Your task to perform on an android device: turn off smart reply in the gmail app Image 0: 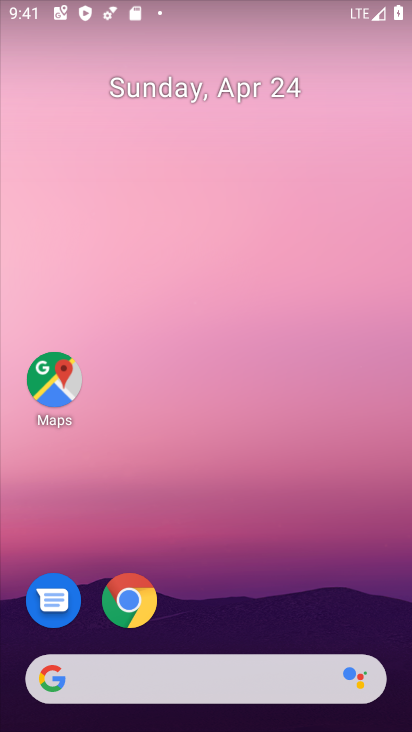
Step 0: drag from (220, 596) to (404, 39)
Your task to perform on an android device: turn off smart reply in the gmail app Image 1: 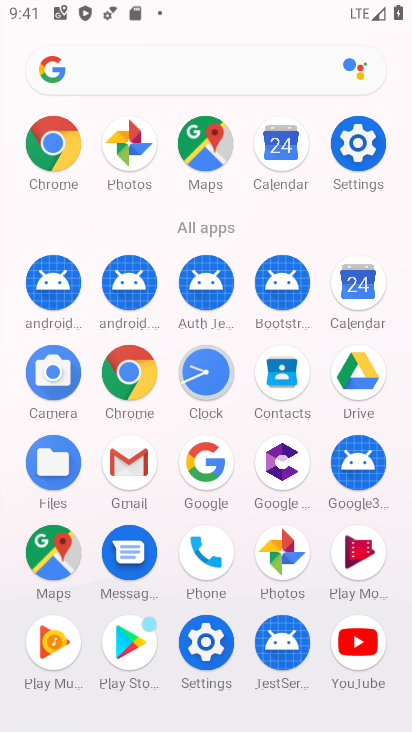
Step 1: click (135, 470)
Your task to perform on an android device: turn off smart reply in the gmail app Image 2: 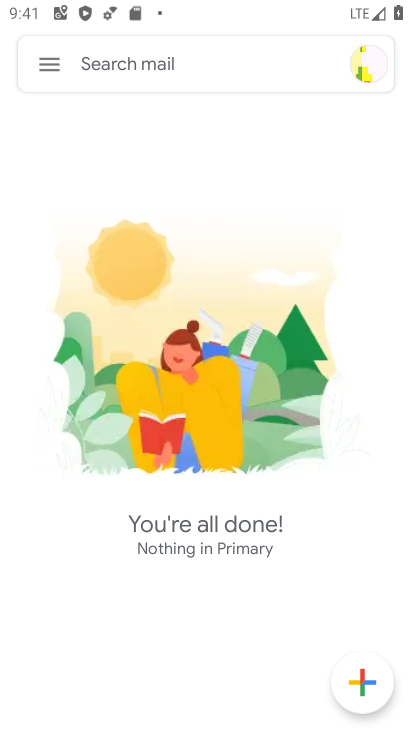
Step 2: click (46, 66)
Your task to perform on an android device: turn off smart reply in the gmail app Image 3: 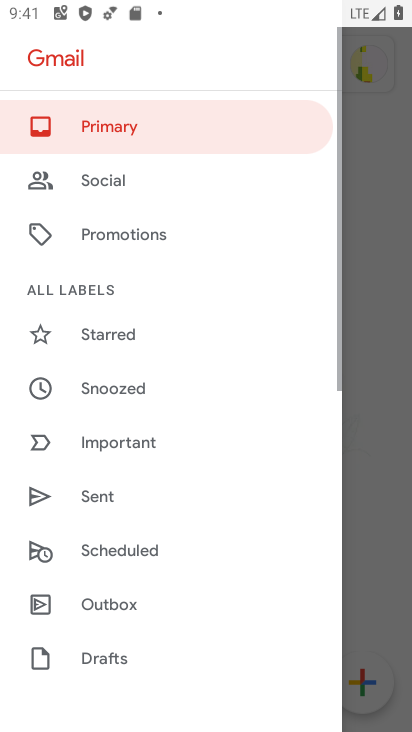
Step 3: drag from (133, 605) to (206, 94)
Your task to perform on an android device: turn off smart reply in the gmail app Image 4: 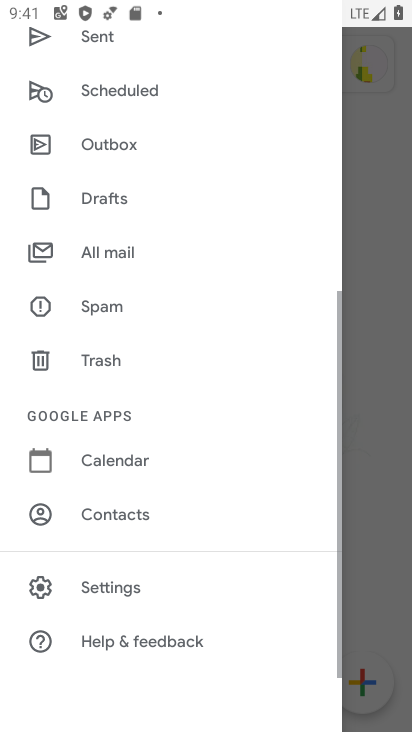
Step 4: click (99, 586)
Your task to perform on an android device: turn off smart reply in the gmail app Image 5: 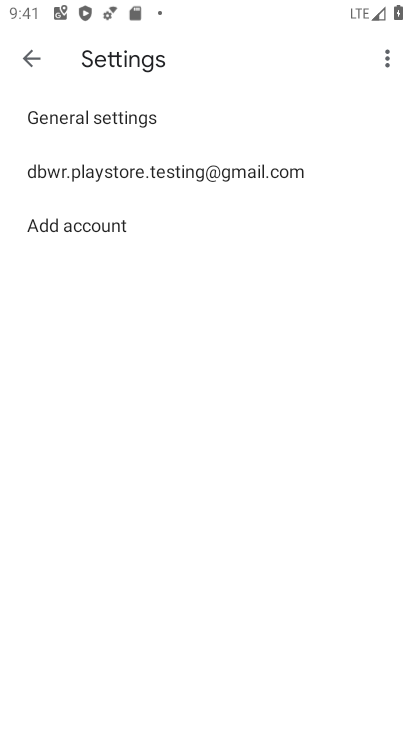
Step 5: click (108, 170)
Your task to perform on an android device: turn off smart reply in the gmail app Image 6: 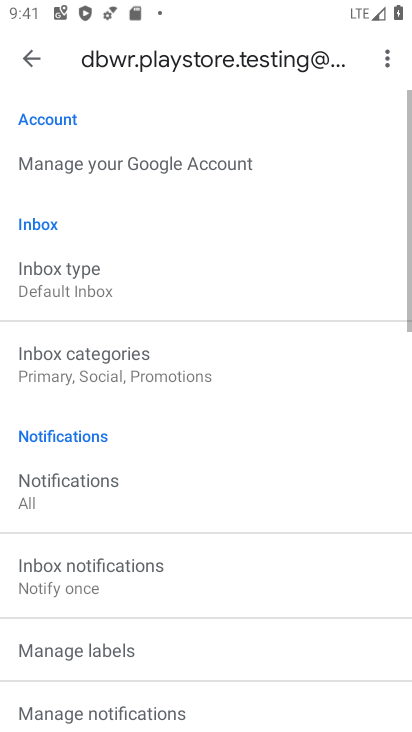
Step 6: drag from (168, 616) to (273, 154)
Your task to perform on an android device: turn off smart reply in the gmail app Image 7: 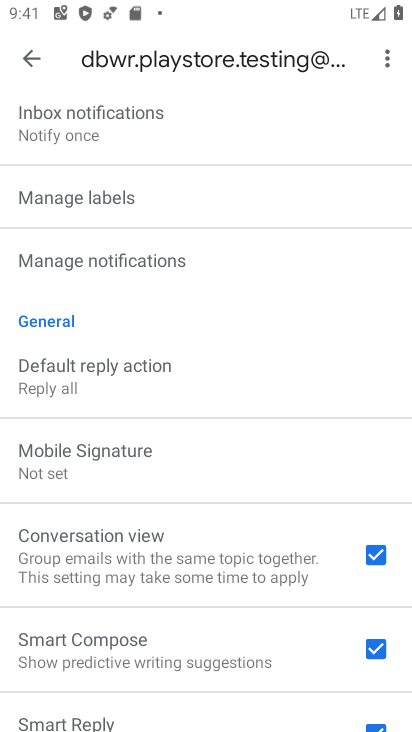
Step 7: drag from (227, 592) to (260, 259)
Your task to perform on an android device: turn off smart reply in the gmail app Image 8: 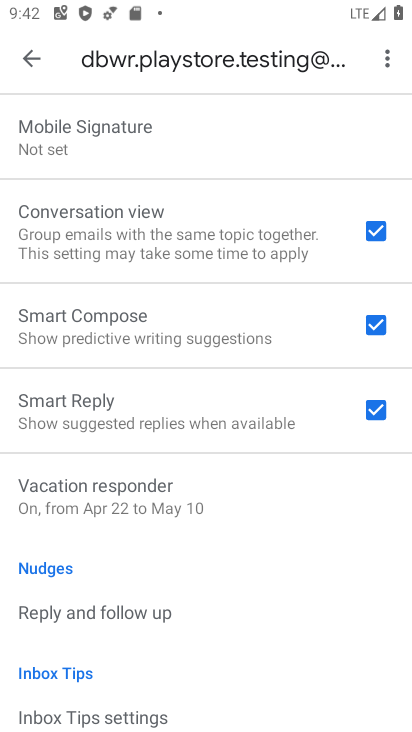
Step 8: click (361, 408)
Your task to perform on an android device: turn off smart reply in the gmail app Image 9: 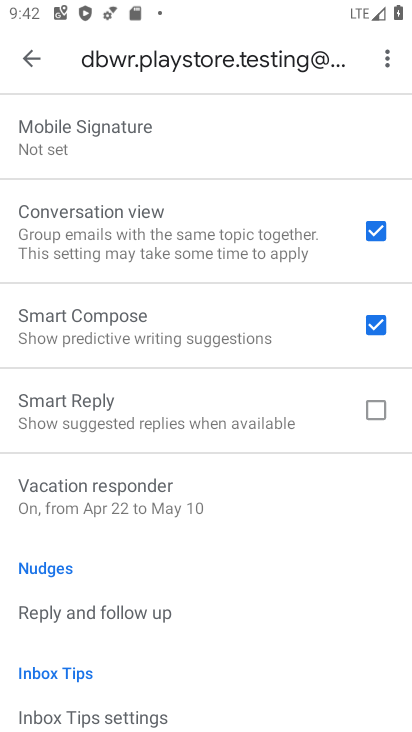
Step 9: task complete